Your task to perform on an android device: turn on translation in the chrome app Image 0: 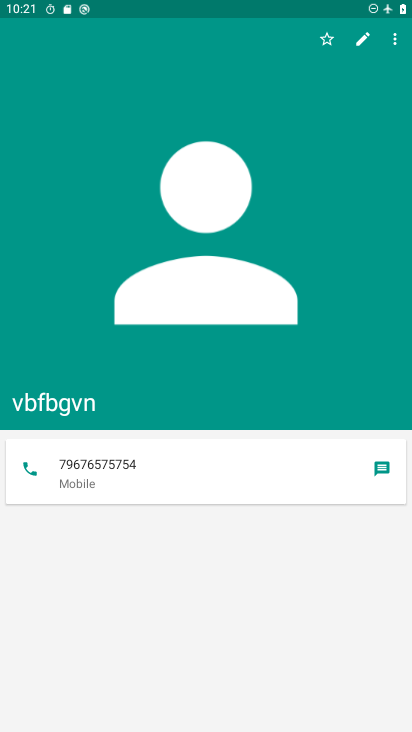
Step 0: press home button
Your task to perform on an android device: turn on translation in the chrome app Image 1: 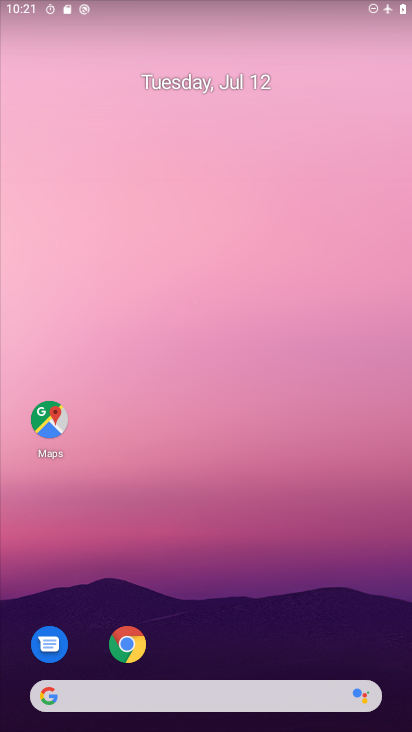
Step 1: drag from (194, 630) to (222, 489)
Your task to perform on an android device: turn on translation in the chrome app Image 2: 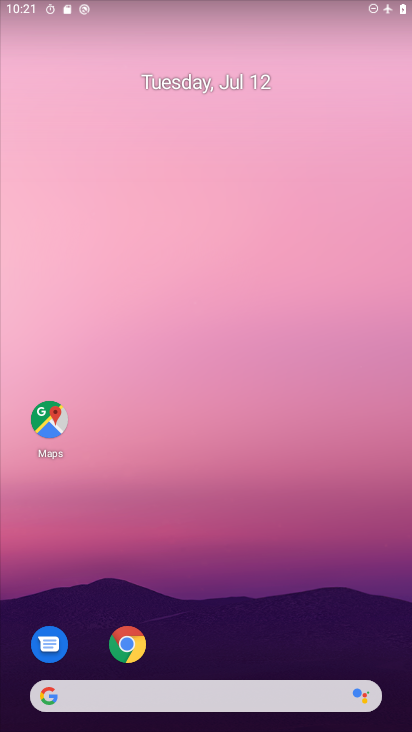
Step 2: click (126, 640)
Your task to perform on an android device: turn on translation in the chrome app Image 3: 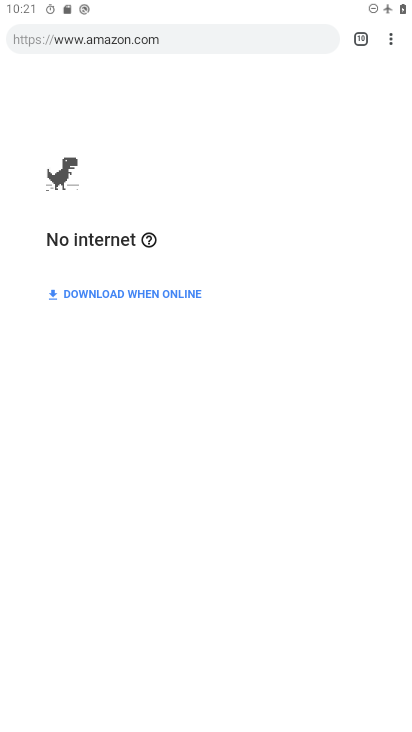
Step 3: click (396, 40)
Your task to perform on an android device: turn on translation in the chrome app Image 4: 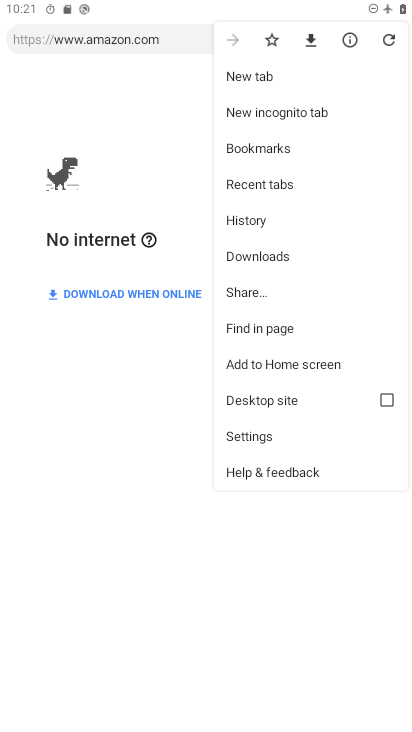
Step 4: click (256, 427)
Your task to perform on an android device: turn on translation in the chrome app Image 5: 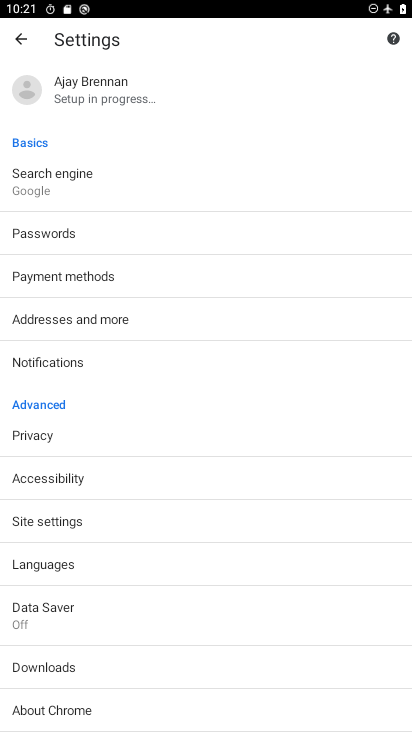
Step 5: click (88, 565)
Your task to perform on an android device: turn on translation in the chrome app Image 6: 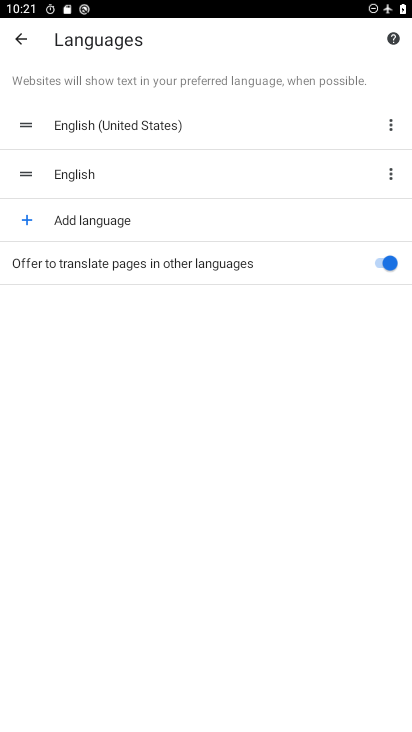
Step 6: task complete